Your task to perform on an android device: turn on sleep mode Image 0: 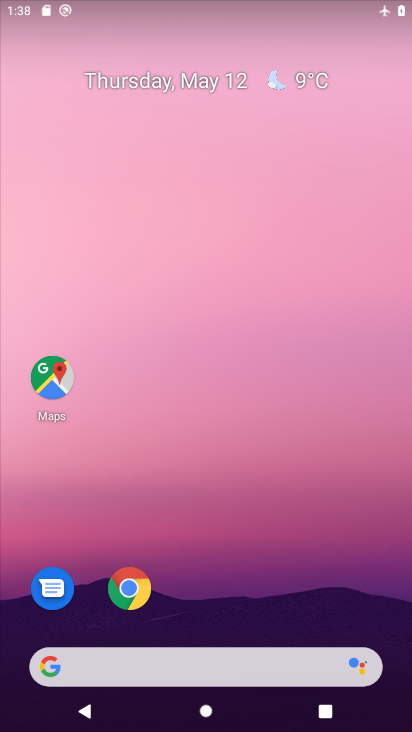
Step 0: drag from (274, 470) to (409, 133)
Your task to perform on an android device: turn on sleep mode Image 1: 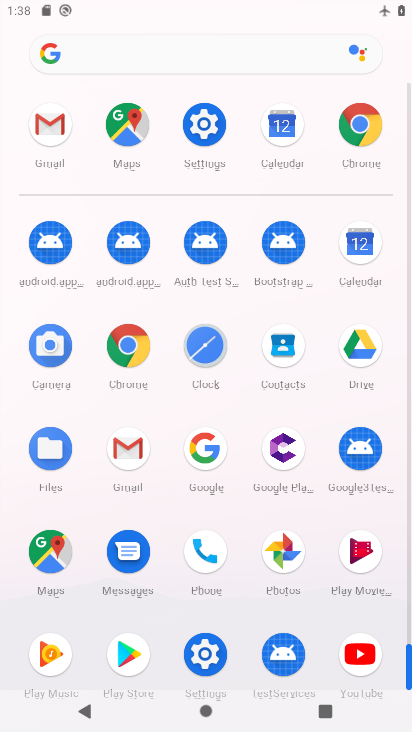
Step 1: click (213, 140)
Your task to perform on an android device: turn on sleep mode Image 2: 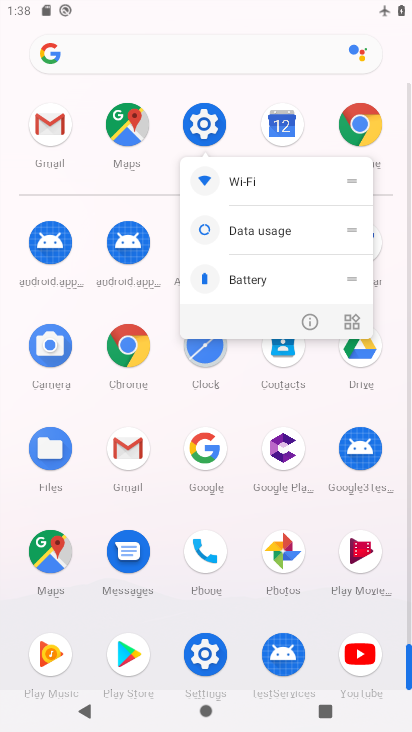
Step 2: click (208, 133)
Your task to perform on an android device: turn on sleep mode Image 3: 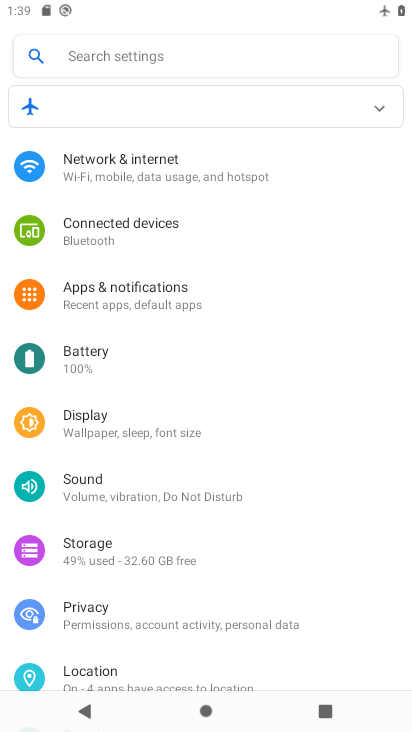
Step 3: click (152, 431)
Your task to perform on an android device: turn on sleep mode Image 4: 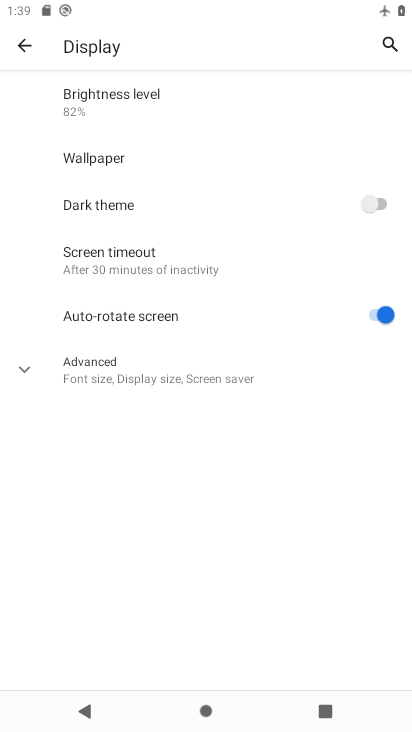
Step 4: click (77, 269)
Your task to perform on an android device: turn on sleep mode Image 5: 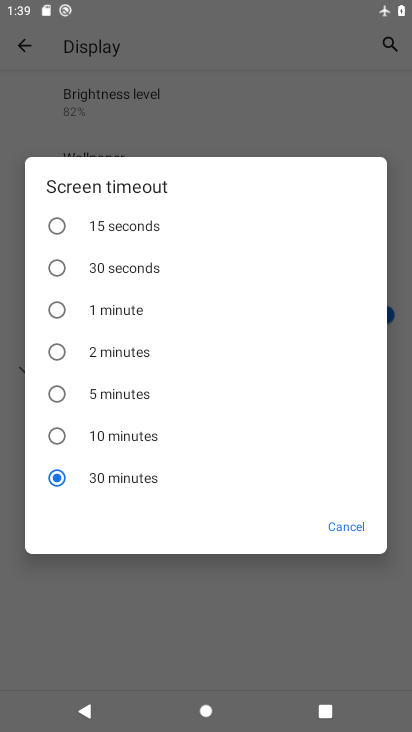
Step 5: task complete